Your task to perform on an android device: set the timer Image 0: 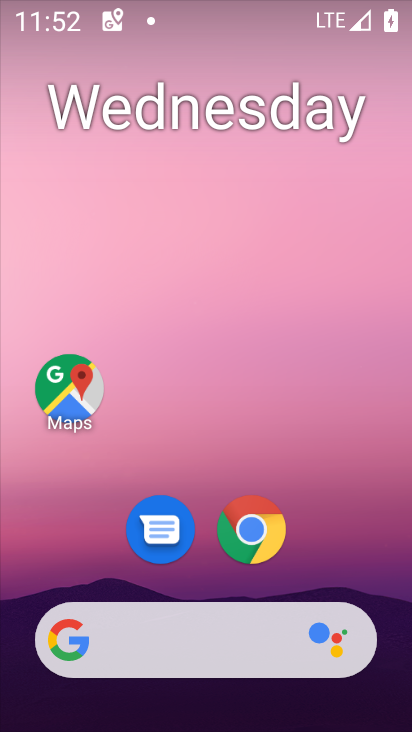
Step 0: drag from (401, 622) to (276, 110)
Your task to perform on an android device: set the timer Image 1: 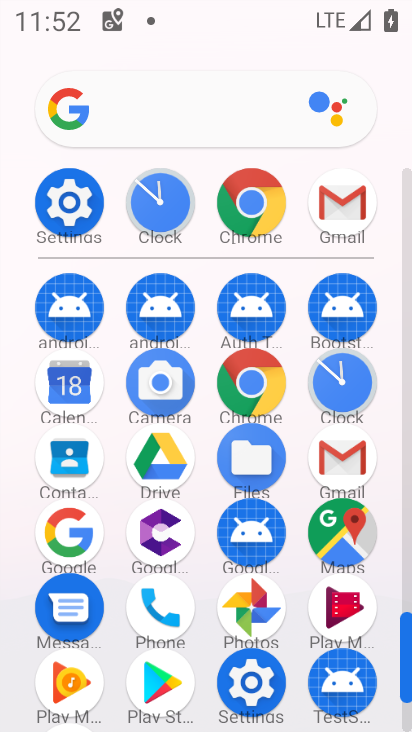
Step 1: click (340, 379)
Your task to perform on an android device: set the timer Image 2: 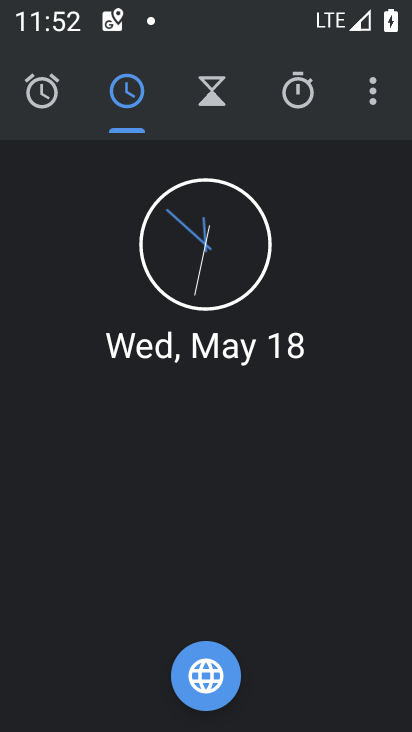
Step 2: click (210, 95)
Your task to perform on an android device: set the timer Image 3: 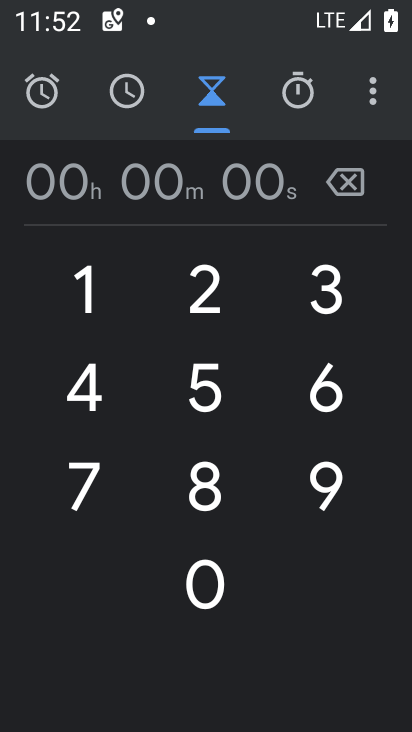
Step 3: click (92, 284)
Your task to perform on an android device: set the timer Image 4: 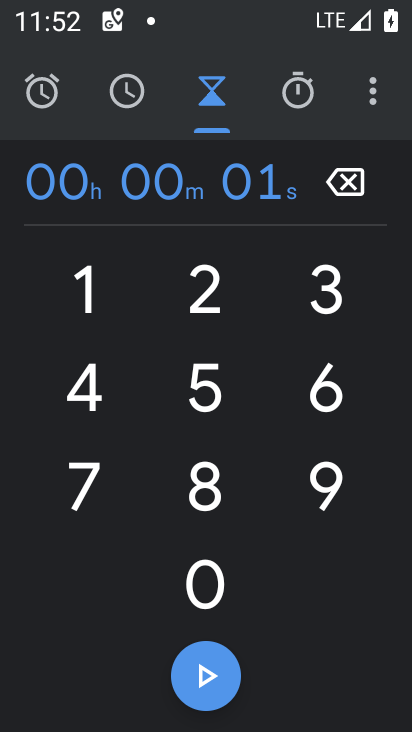
Step 4: click (198, 382)
Your task to perform on an android device: set the timer Image 5: 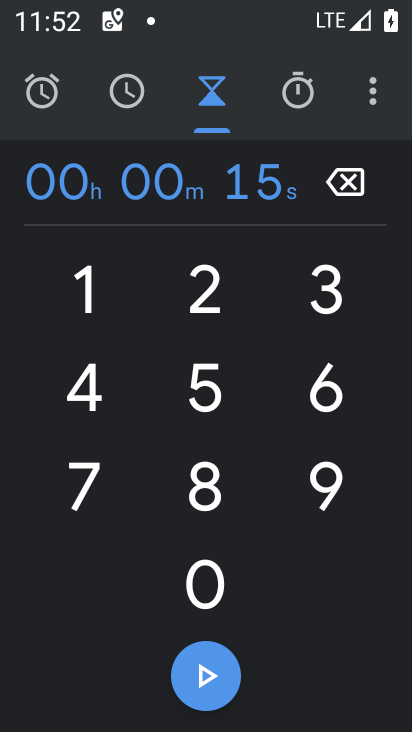
Step 5: click (210, 589)
Your task to perform on an android device: set the timer Image 6: 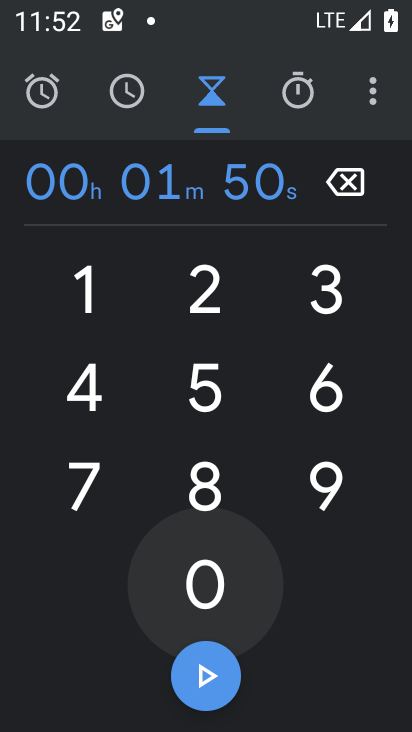
Step 6: click (210, 589)
Your task to perform on an android device: set the timer Image 7: 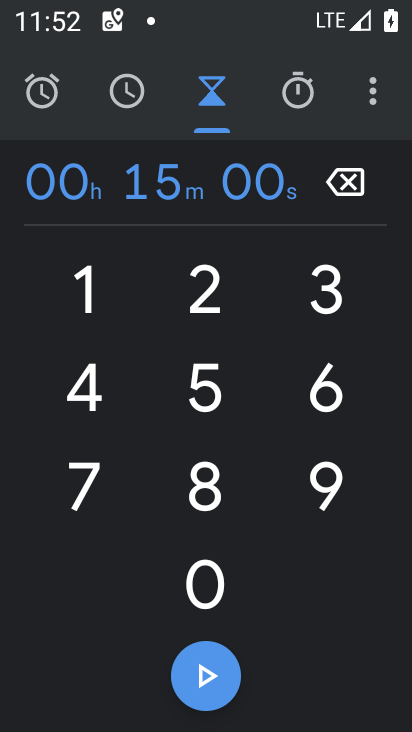
Step 7: click (210, 589)
Your task to perform on an android device: set the timer Image 8: 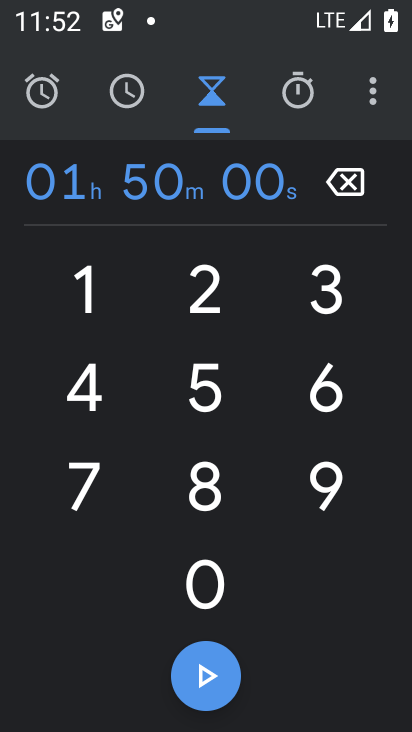
Step 8: task complete